Your task to perform on an android device: Search for pizza restaurants on Maps Image 0: 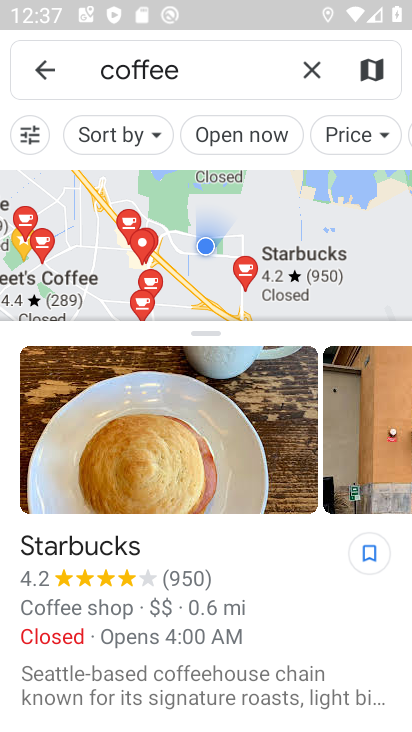
Step 0: click (314, 72)
Your task to perform on an android device: Search for pizza restaurants on Maps Image 1: 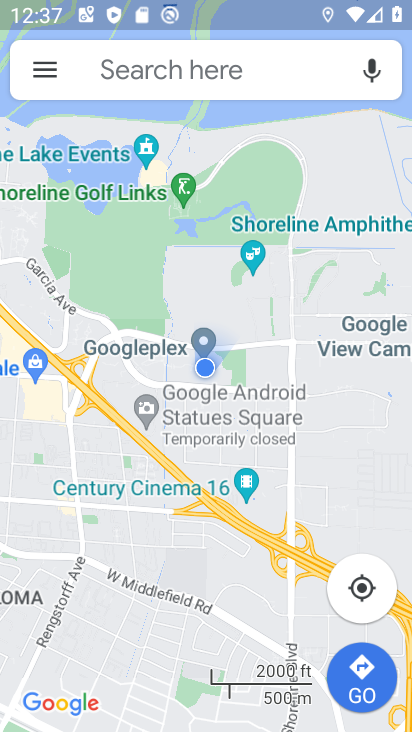
Step 1: click (221, 69)
Your task to perform on an android device: Search for pizza restaurants on Maps Image 2: 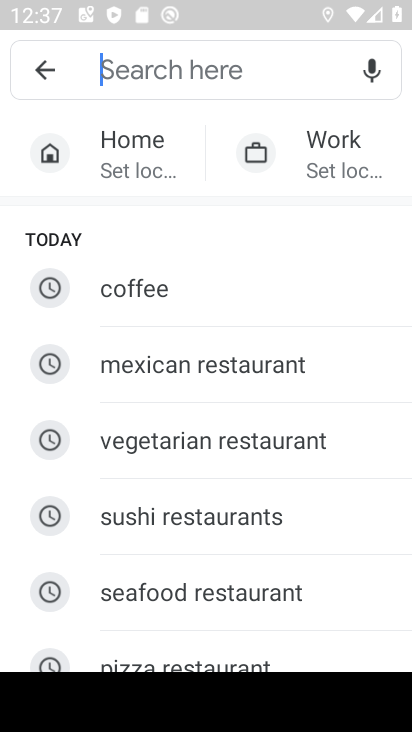
Step 2: click (186, 655)
Your task to perform on an android device: Search for pizza restaurants on Maps Image 3: 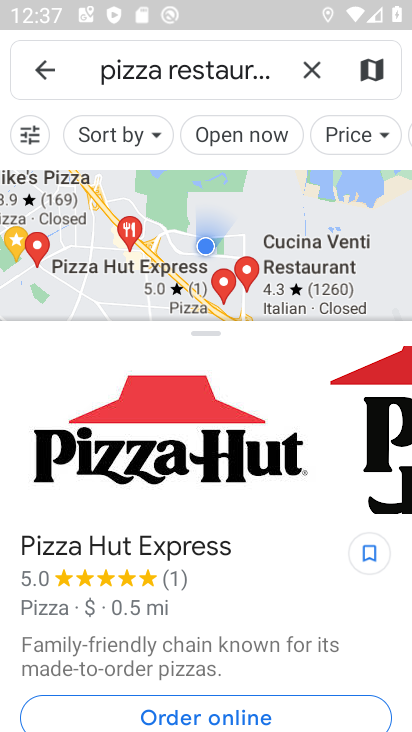
Step 3: task complete